Your task to perform on an android device: Open settings Image 0: 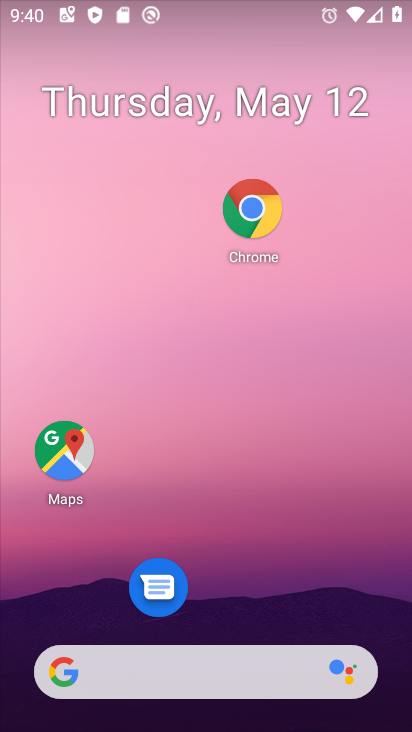
Step 0: drag from (325, 603) to (333, 189)
Your task to perform on an android device: Open settings Image 1: 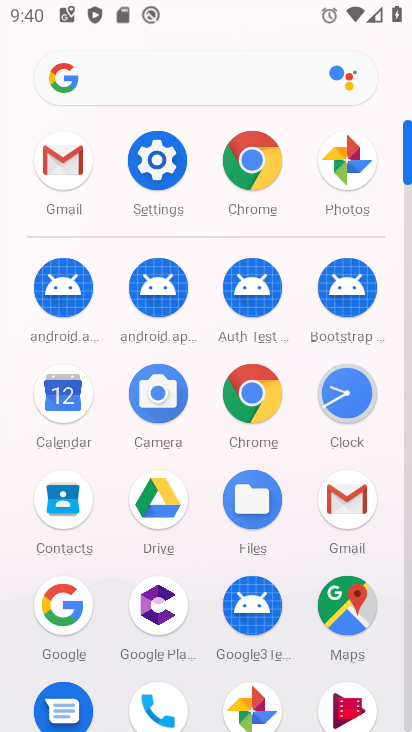
Step 1: click (149, 150)
Your task to perform on an android device: Open settings Image 2: 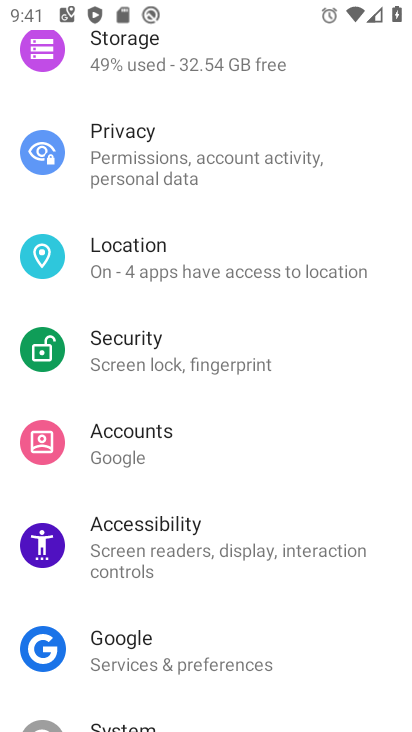
Step 2: task complete